Your task to perform on an android device: What is the recent news? Image 0: 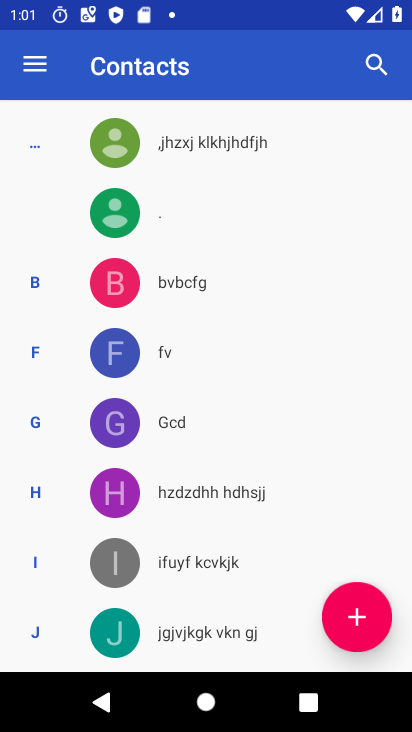
Step 0: press home button
Your task to perform on an android device: What is the recent news? Image 1: 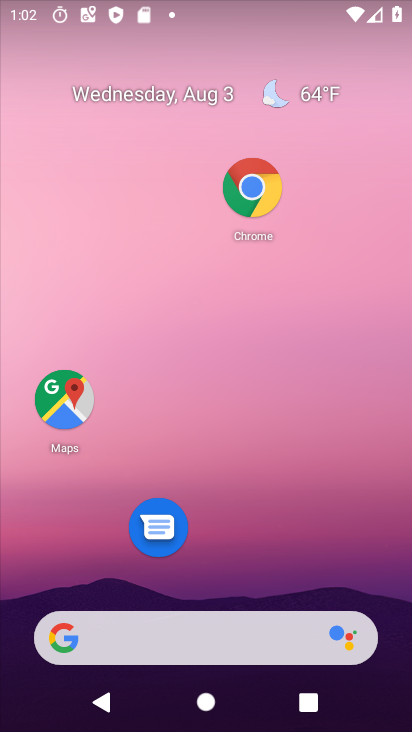
Step 1: click (162, 633)
Your task to perform on an android device: What is the recent news? Image 2: 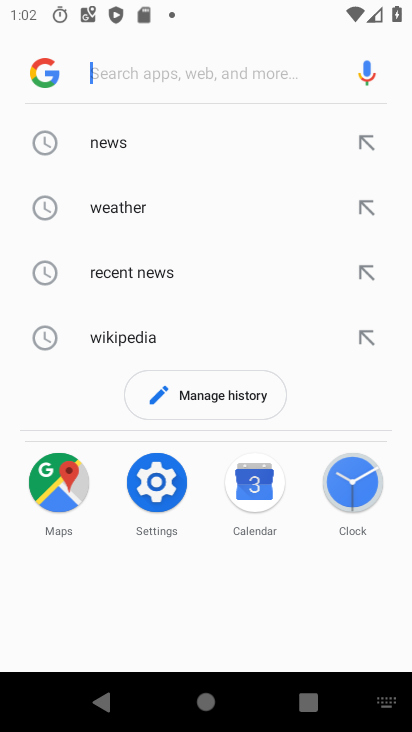
Step 2: click (146, 281)
Your task to perform on an android device: What is the recent news? Image 3: 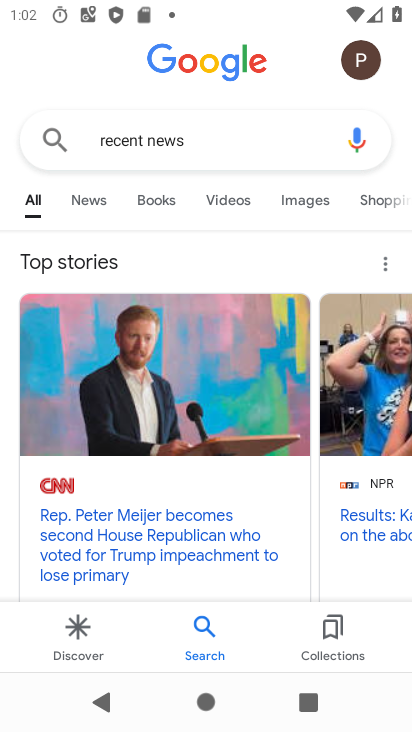
Step 3: task complete